Your task to perform on an android device: open chrome and create a bookmark for the current page Image 0: 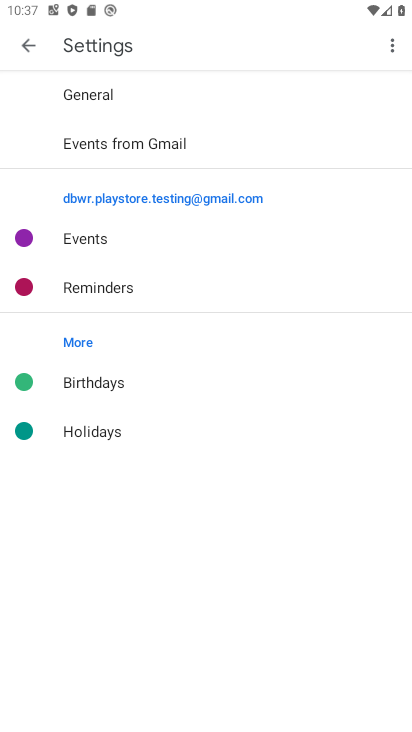
Step 0: press home button
Your task to perform on an android device: open chrome and create a bookmark for the current page Image 1: 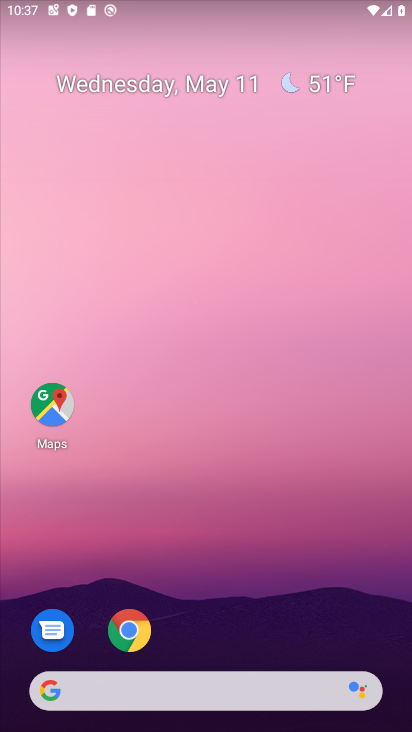
Step 1: click (122, 627)
Your task to perform on an android device: open chrome and create a bookmark for the current page Image 2: 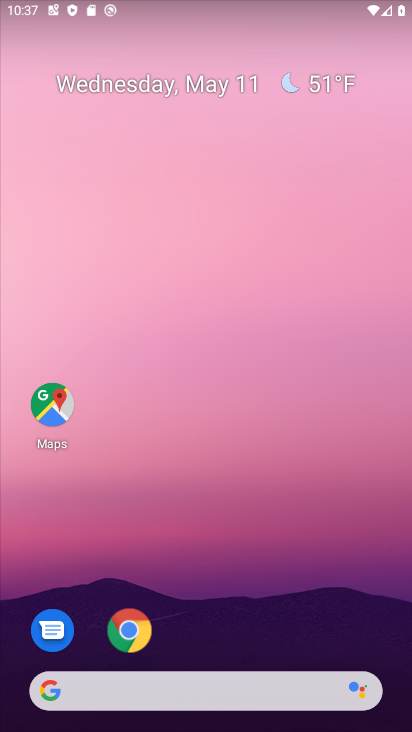
Step 2: click (122, 627)
Your task to perform on an android device: open chrome and create a bookmark for the current page Image 3: 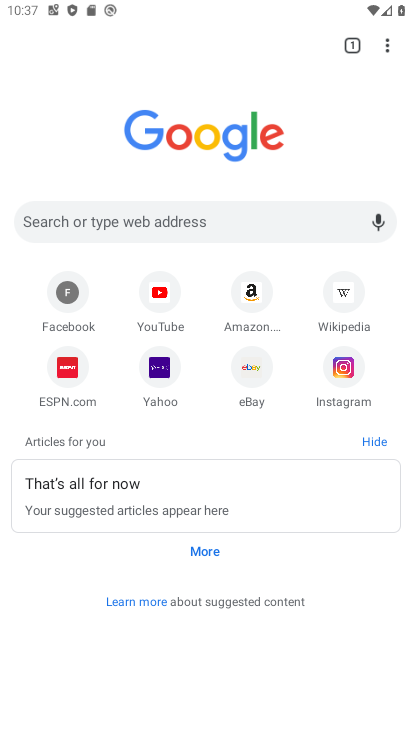
Step 3: click (387, 49)
Your task to perform on an android device: open chrome and create a bookmark for the current page Image 4: 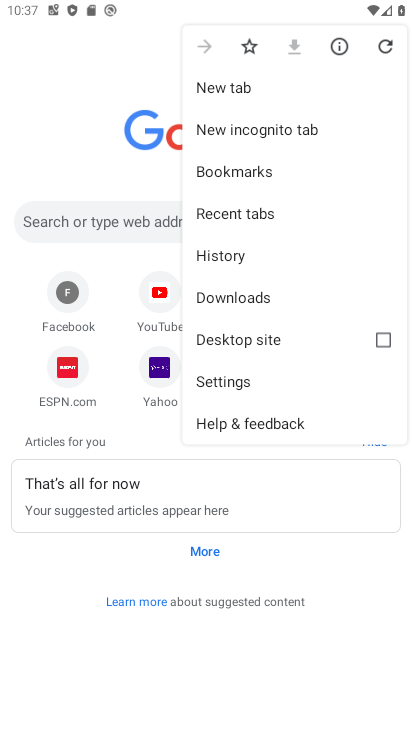
Step 4: click (249, 45)
Your task to perform on an android device: open chrome and create a bookmark for the current page Image 5: 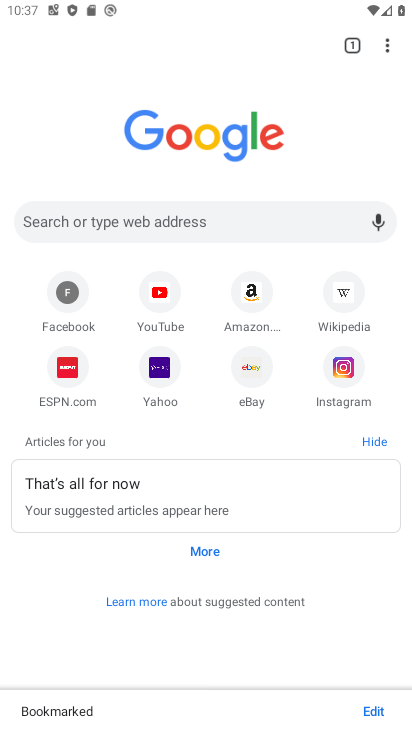
Step 5: task complete